Your task to perform on an android device: Open Google Maps and go to "Timeline" Image 0: 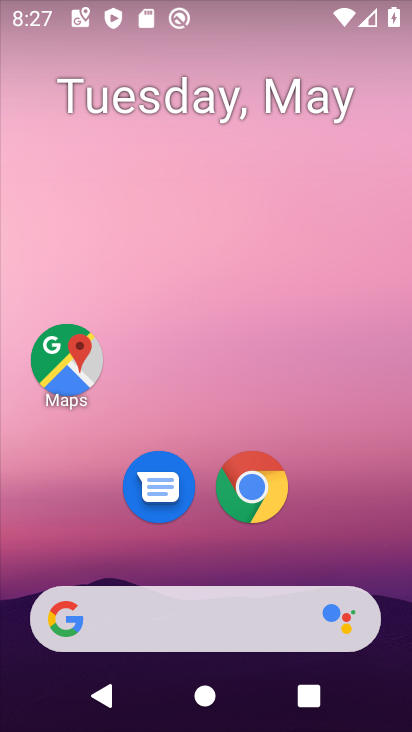
Step 0: drag from (373, 554) to (353, 231)
Your task to perform on an android device: Open Google Maps and go to "Timeline" Image 1: 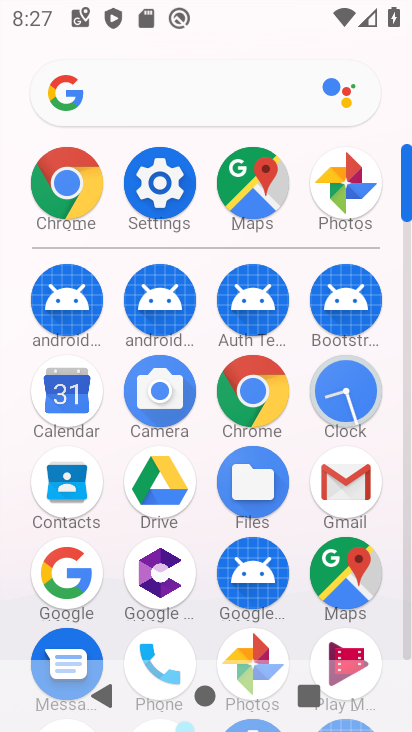
Step 1: click (359, 568)
Your task to perform on an android device: Open Google Maps and go to "Timeline" Image 2: 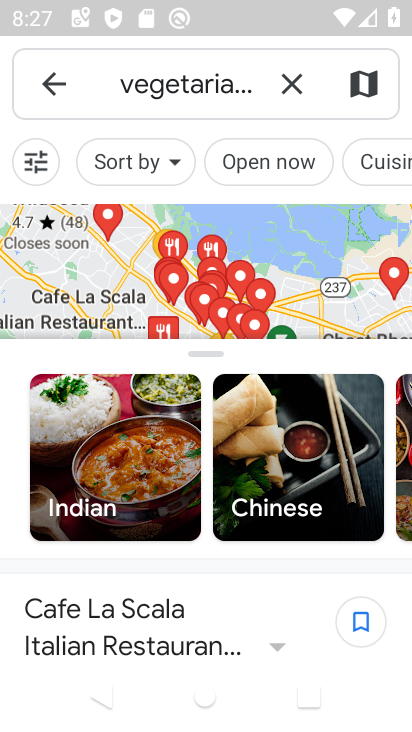
Step 2: press back button
Your task to perform on an android device: Open Google Maps and go to "Timeline" Image 3: 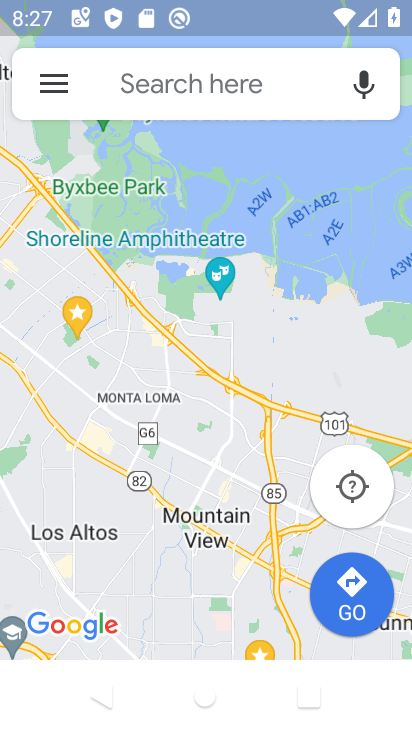
Step 3: click (65, 93)
Your task to perform on an android device: Open Google Maps and go to "Timeline" Image 4: 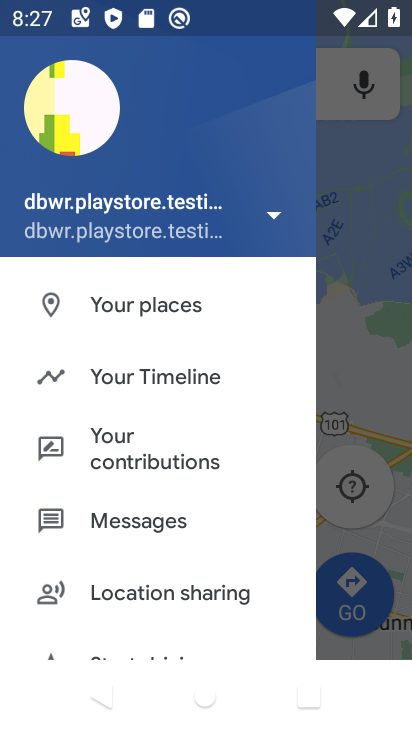
Step 4: drag from (230, 436) to (237, 256)
Your task to perform on an android device: Open Google Maps and go to "Timeline" Image 5: 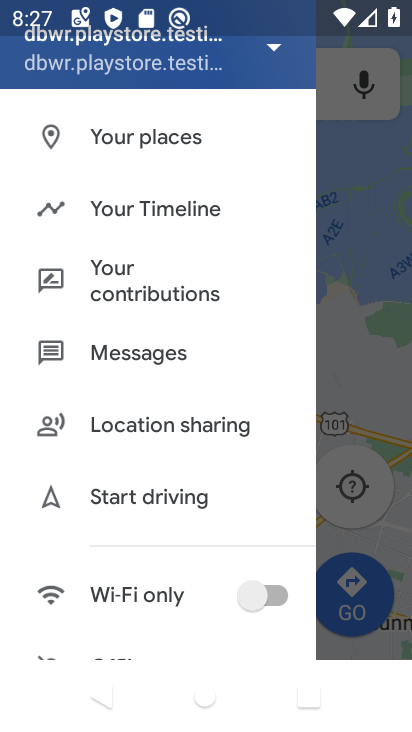
Step 5: click (184, 230)
Your task to perform on an android device: Open Google Maps and go to "Timeline" Image 6: 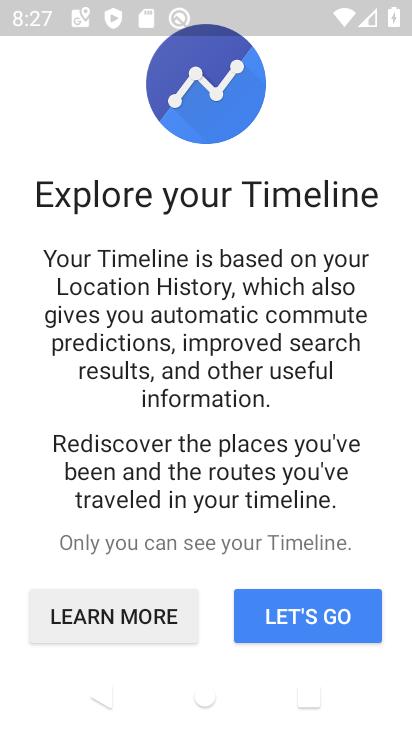
Step 6: task complete